Your task to perform on an android device: Open the calendar app, open the side menu, and click the "Day" option Image 0: 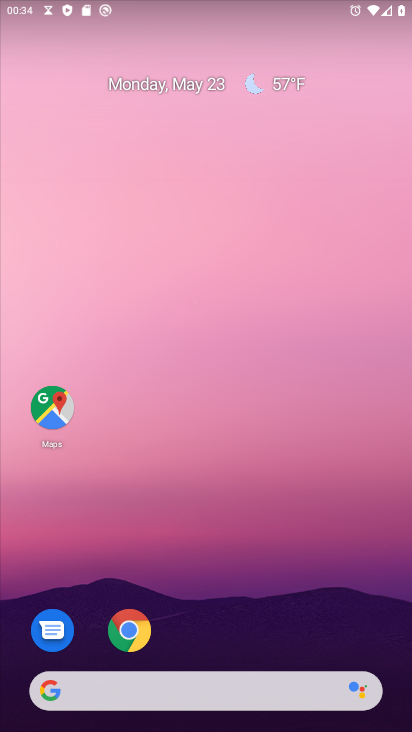
Step 0: drag from (270, 617) to (105, 3)
Your task to perform on an android device: Open the calendar app, open the side menu, and click the "Day" option Image 1: 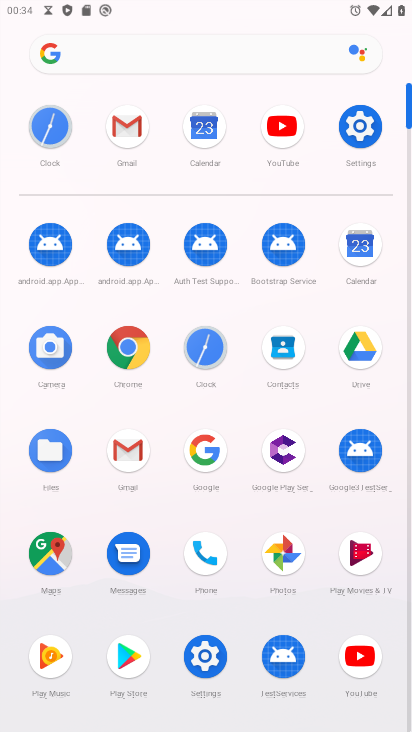
Step 1: click (356, 244)
Your task to perform on an android device: Open the calendar app, open the side menu, and click the "Day" option Image 2: 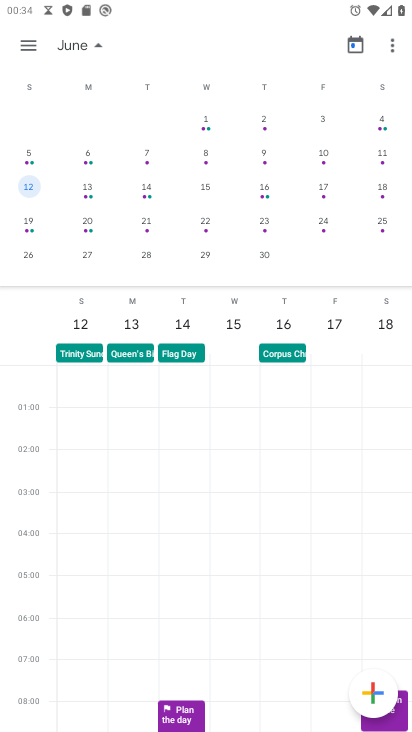
Step 2: click (29, 39)
Your task to perform on an android device: Open the calendar app, open the side menu, and click the "Day" option Image 3: 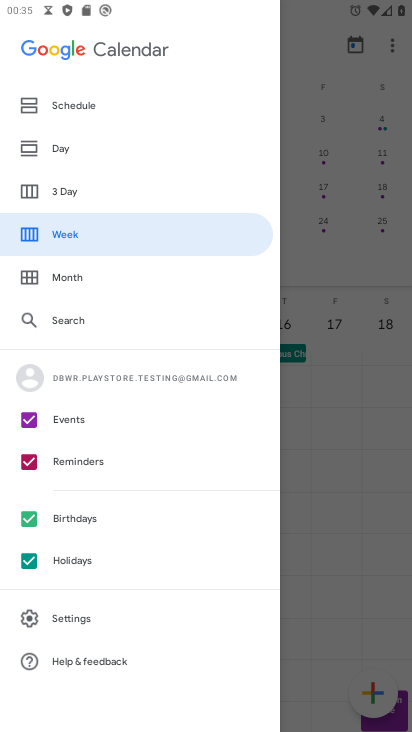
Step 3: click (60, 143)
Your task to perform on an android device: Open the calendar app, open the side menu, and click the "Day" option Image 4: 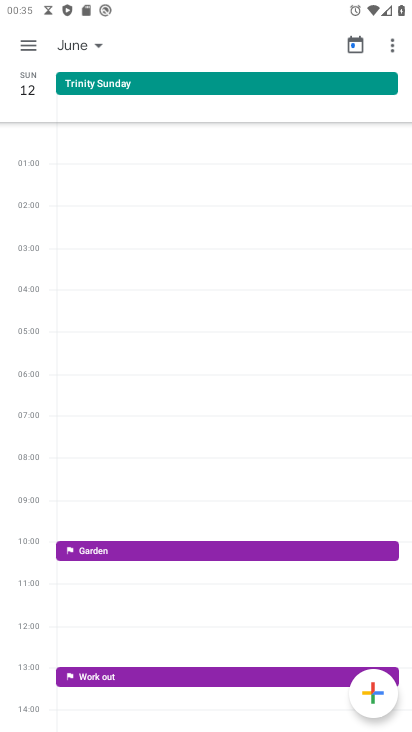
Step 4: click (29, 39)
Your task to perform on an android device: Open the calendar app, open the side menu, and click the "Day" option Image 5: 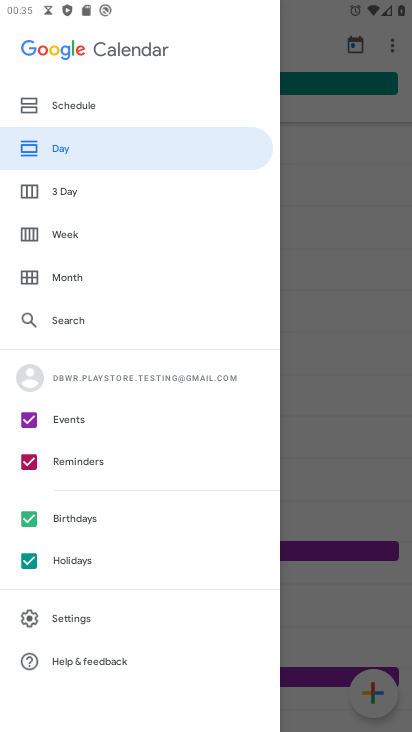
Step 5: click (101, 145)
Your task to perform on an android device: Open the calendar app, open the side menu, and click the "Day" option Image 6: 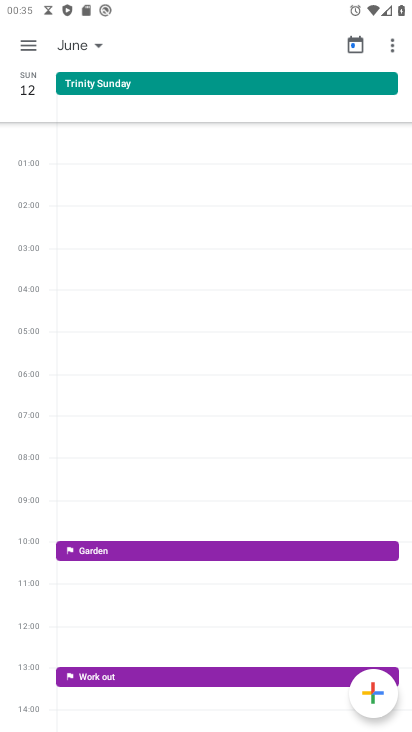
Step 6: task complete